Your task to perform on an android device: turn off notifications settings in the gmail app Image 0: 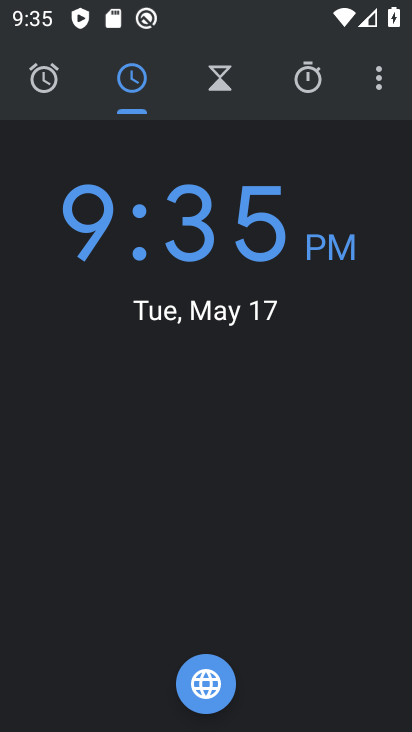
Step 0: press home button
Your task to perform on an android device: turn off notifications settings in the gmail app Image 1: 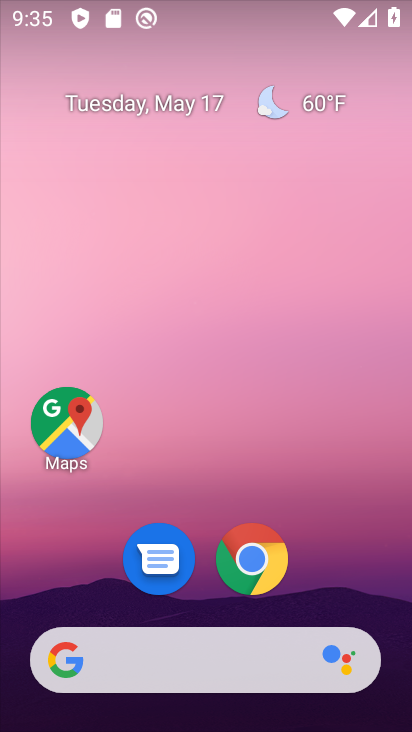
Step 1: drag from (351, 528) to (369, 105)
Your task to perform on an android device: turn off notifications settings in the gmail app Image 2: 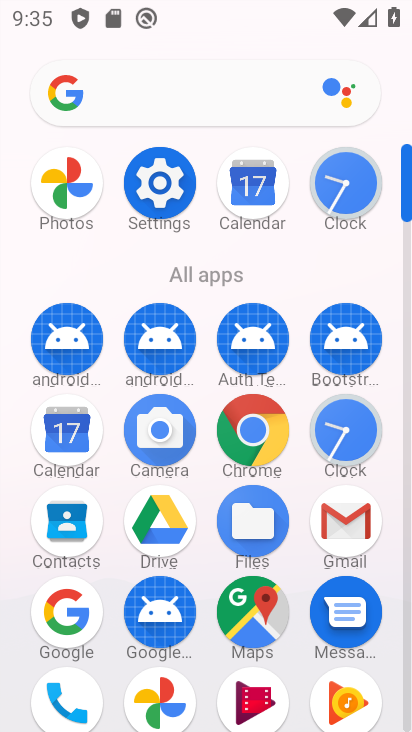
Step 2: click (351, 519)
Your task to perform on an android device: turn off notifications settings in the gmail app Image 3: 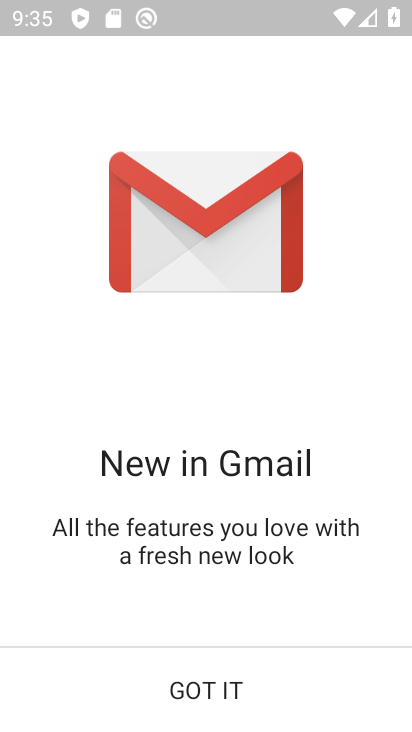
Step 3: click (151, 681)
Your task to perform on an android device: turn off notifications settings in the gmail app Image 4: 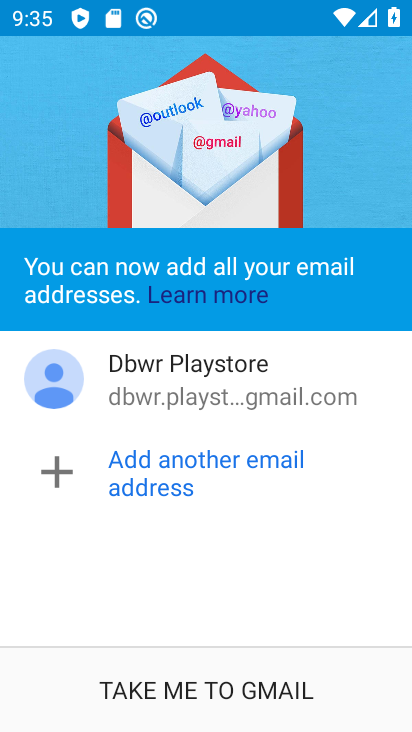
Step 4: click (204, 668)
Your task to perform on an android device: turn off notifications settings in the gmail app Image 5: 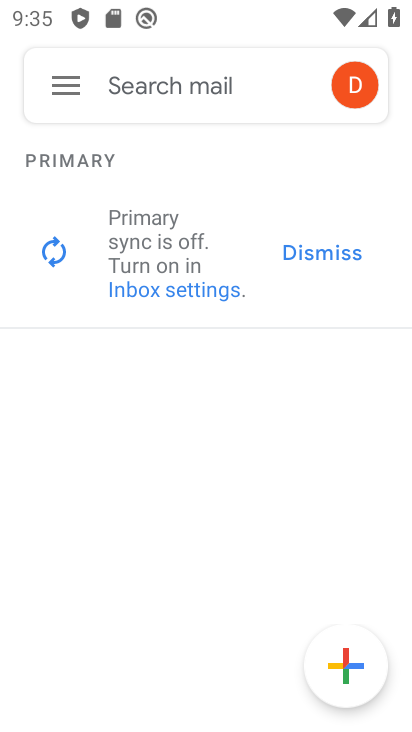
Step 5: click (72, 83)
Your task to perform on an android device: turn off notifications settings in the gmail app Image 6: 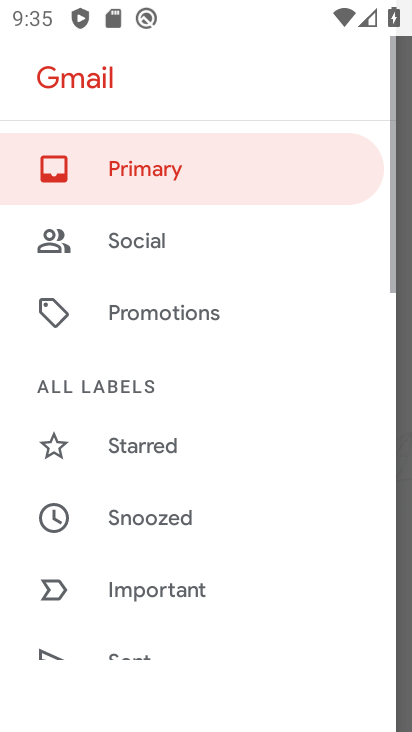
Step 6: drag from (148, 562) to (251, 12)
Your task to perform on an android device: turn off notifications settings in the gmail app Image 7: 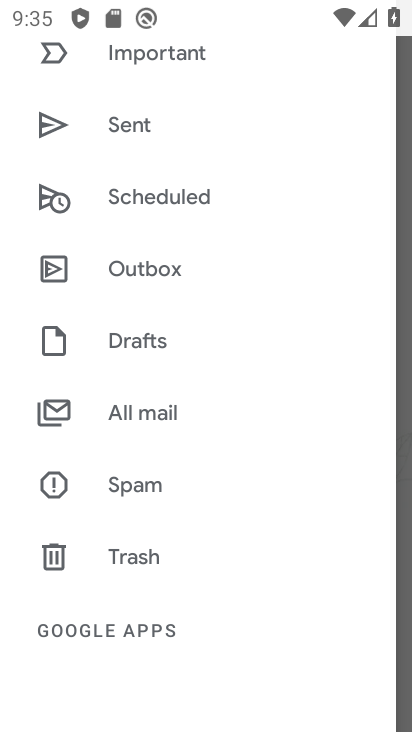
Step 7: drag from (141, 595) to (272, 144)
Your task to perform on an android device: turn off notifications settings in the gmail app Image 8: 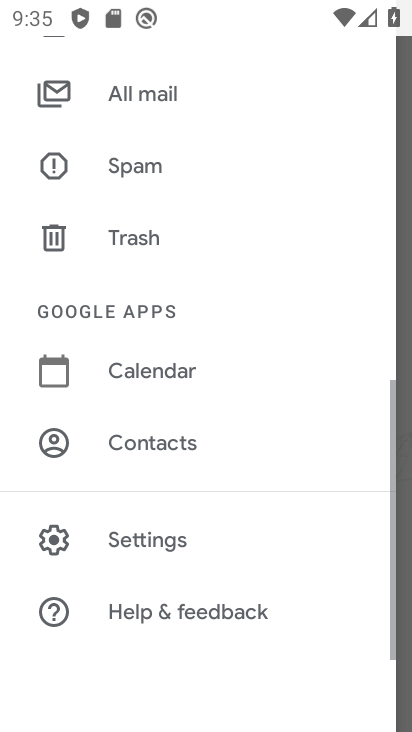
Step 8: click (161, 529)
Your task to perform on an android device: turn off notifications settings in the gmail app Image 9: 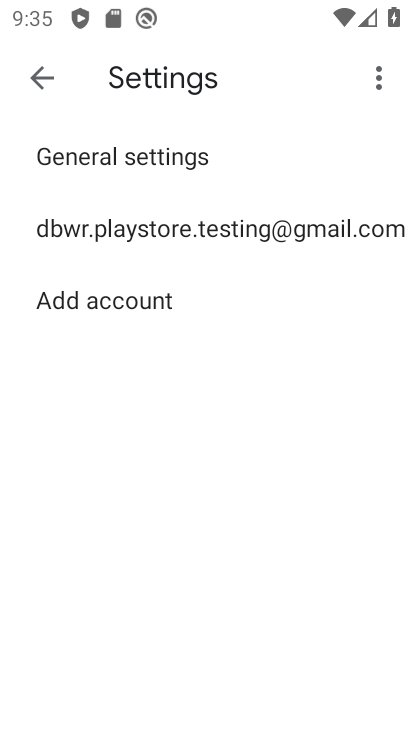
Step 9: click (260, 220)
Your task to perform on an android device: turn off notifications settings in the gmail app Image 10: 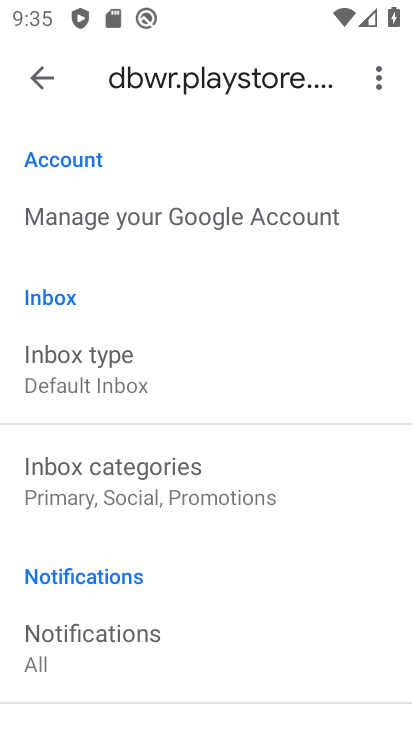
Step 10: drag from (237, 614) to (315, 158)
Your task to perform on an android device: turn off notifications settings in the gmail app Image 11: 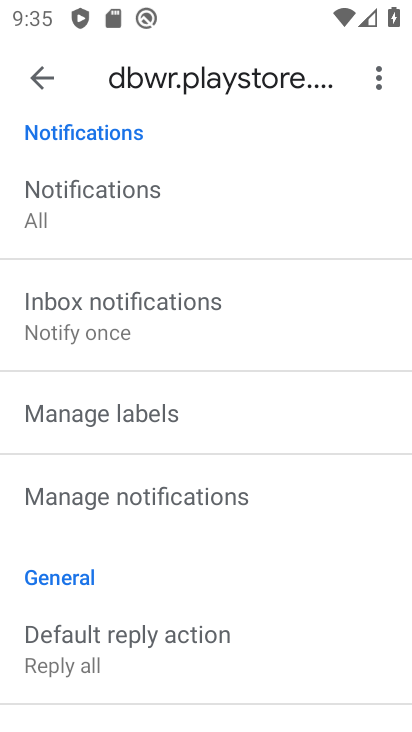
Step 11: click (165, 505)
Your task to perform on an android device: turn off notifications settings in the gmail app Image 12: 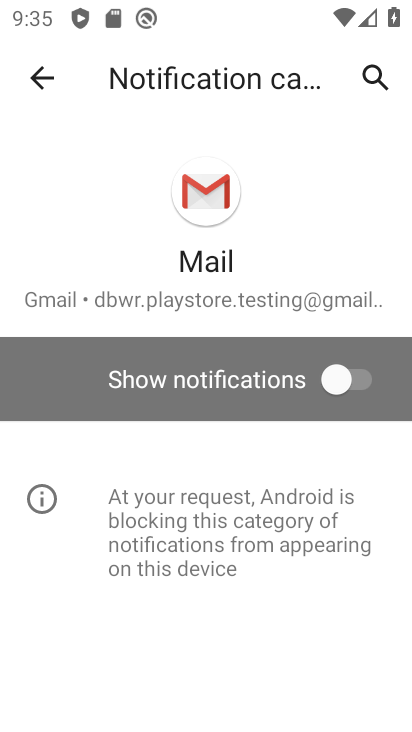
Step 12: task complete